Your task to perform on an android device: What's the weather? Image 0: 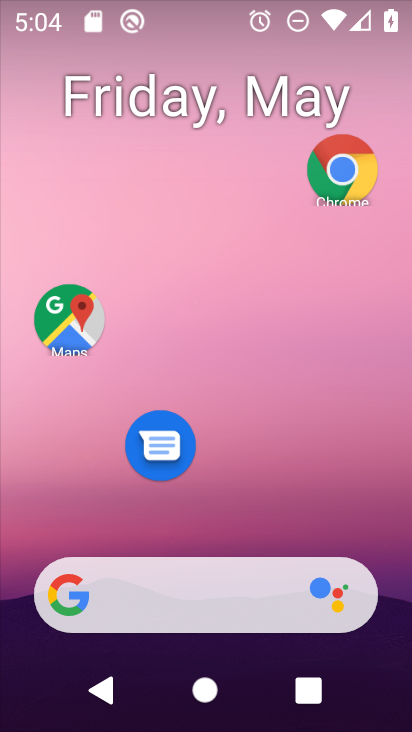
Step 0: click (190, 586)
Your task to perform on an android device: What's the weather? Image 1: 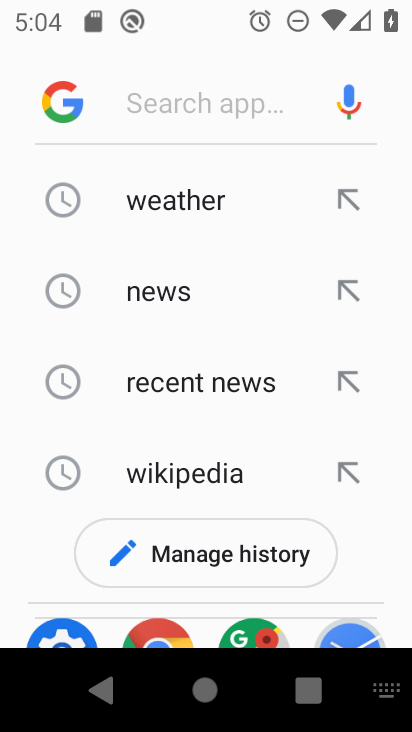
Step 1: click (177, 211)
Your task to perform on an android device: What's the weather? Image 2: 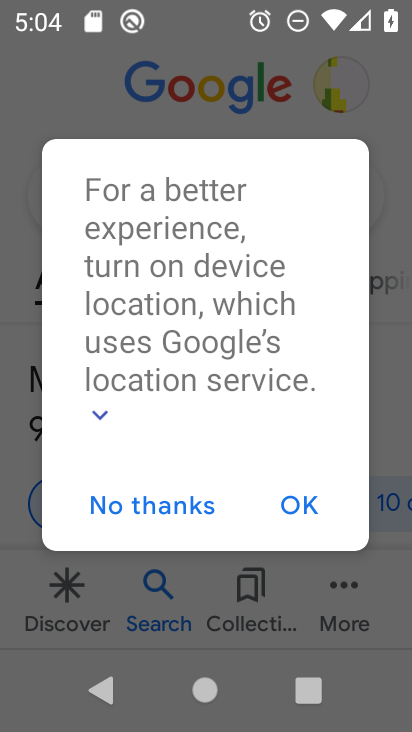
Step 2: click (137, 509)
Your task to perform on an android device: What's the weather? Image 3: 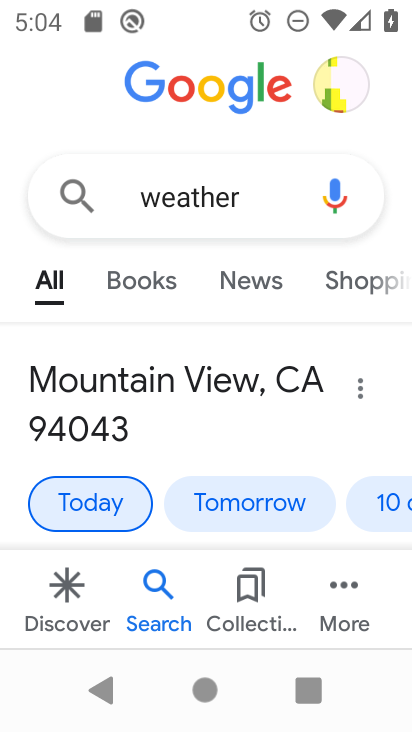
Step 3: task complete